Your task to perform on an android device: turn off notifications settings in the gmail app Image 0: 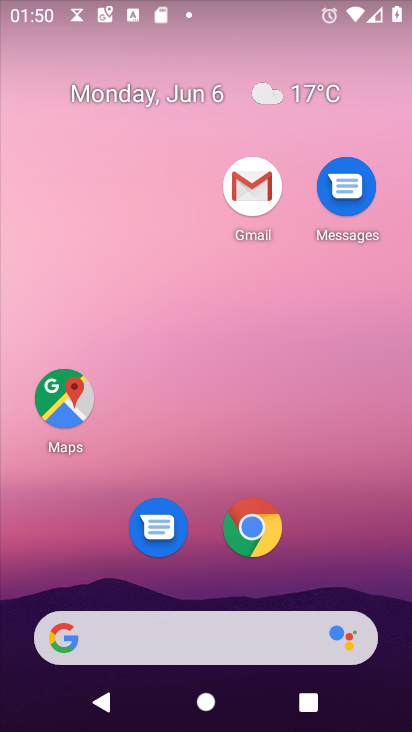
Step 0: drag from (300, 576) to (260, 38)
Your task to perform on an android device: turn off notifications settings in the gmail app Image 1: 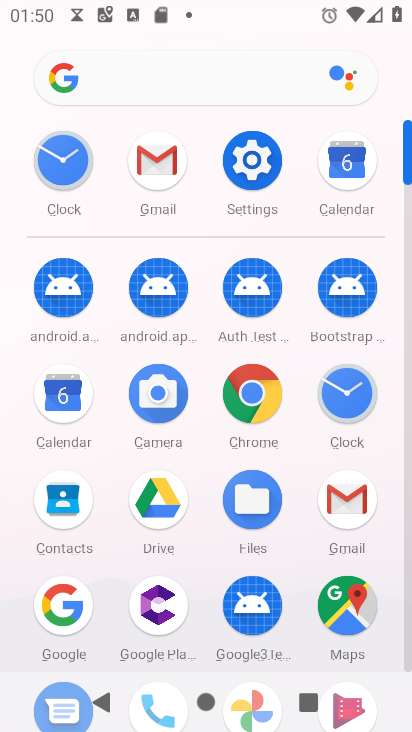
Step 1: drag from (212, 618) to (170, 273)
Your task to perform on an android device: turn off notifications settings in the gmail app Image 2: 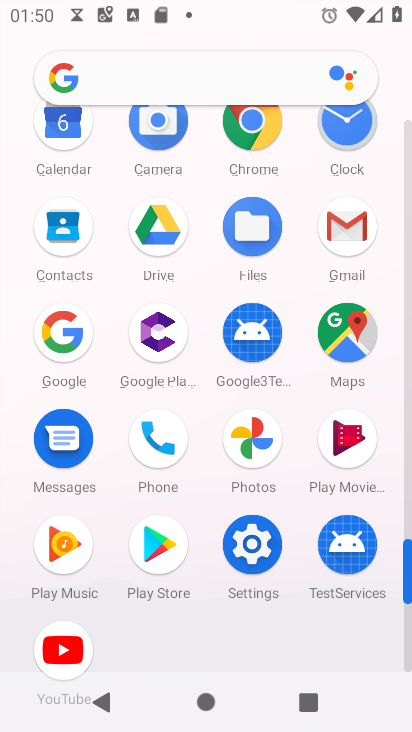
Step 2: click (353, 213)
Your task to perform on an android device: turn off notifications settings in the gmail app Image 3: 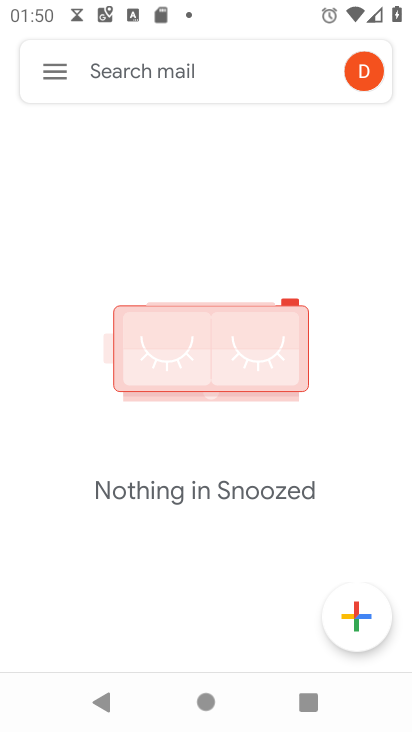
Step 3: click (60, 67)
Your task to perform on an android device: turn off notifications settings in the gmail app Image 4: 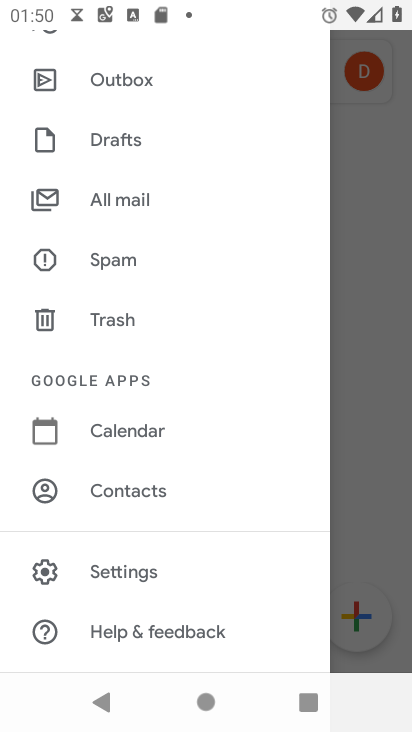
Step 4: click (149, 561)
Your task to perform on an android device: turn off notifications settings in the gmail app Image 5: 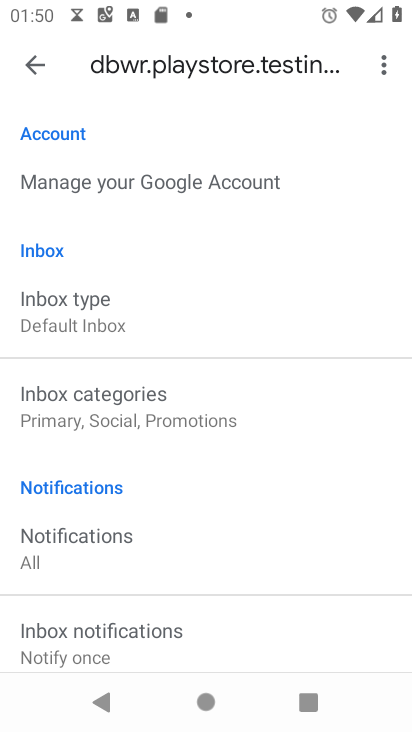
Step 5: click (96, 538)
Your task to perform on an android device: turn off notifications settings in the gmail app Image 6: 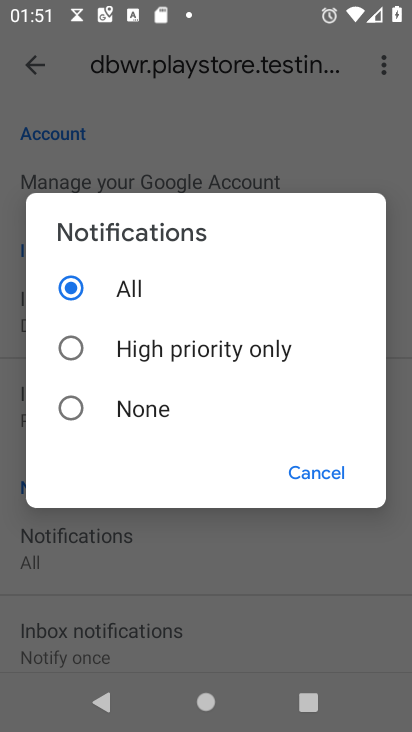
Step 6: click (120, 406)
Your task to perform on an android device: turn off notifications settings in the gmail app Image 7: 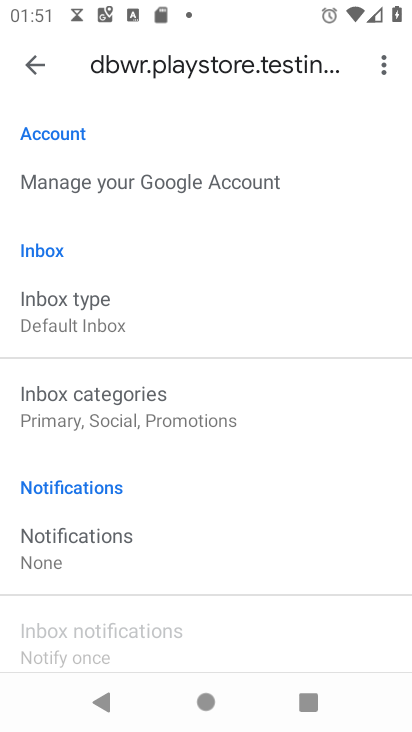
Step 7: task complete